Your task to perform on an android device: Open the phone app and click the voicemail tab. Image 0: 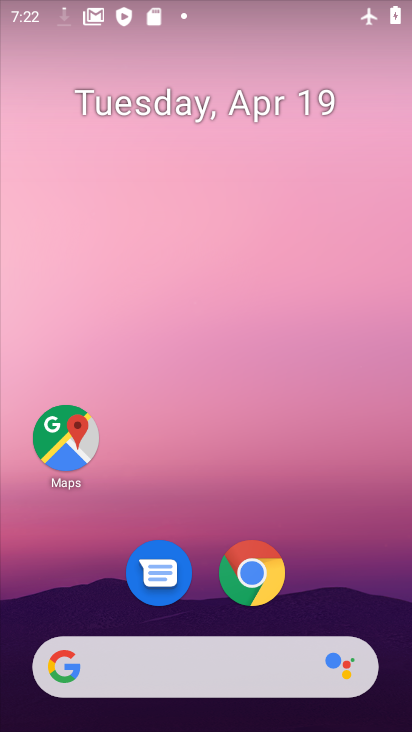
Step 0: drag from (287, 677) to (268, 227)
Your task to perform on an android device: Open the phone app and click the voicemail tab. Image 1: 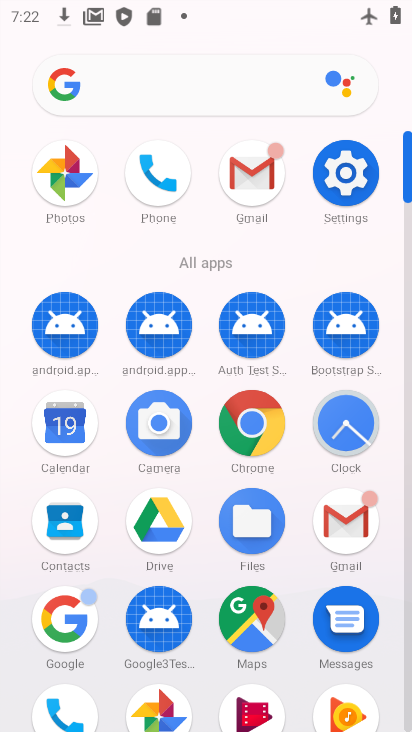
Step 1: click (169, 192)
Your task to perform on an android device: Open the phone app and click the voicemail tab. Image 2: 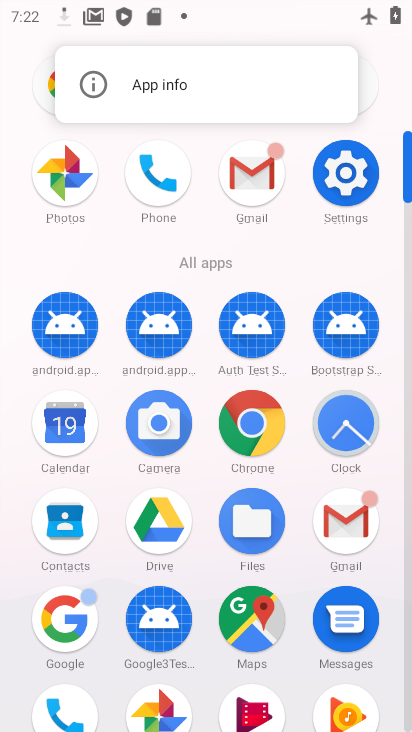
Step 2: click (175, 166)
Your task to perform on an android device: Open the phone app and click the voicemail tab. Image 3: 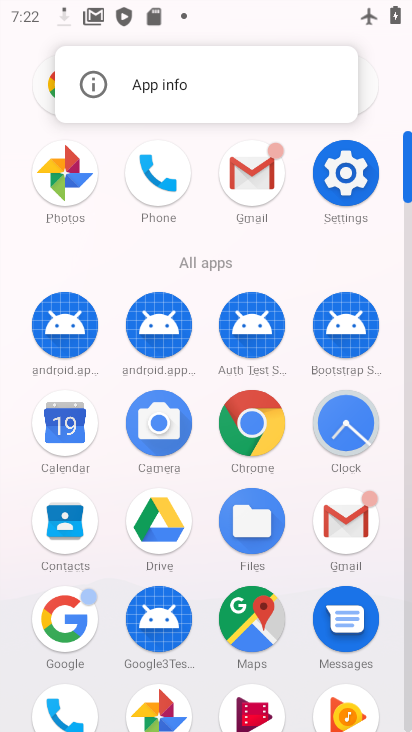
Step 3: click (156, 184)
Your task to perform on an android device: Open the phone app and click the voicemail tab. Image 4: 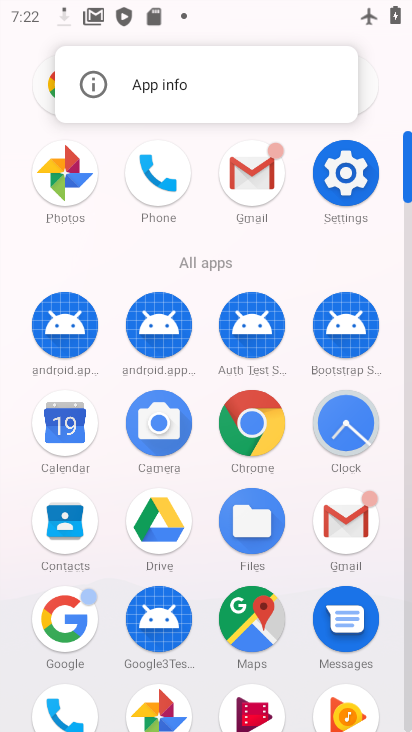
Step 4: click (156, 184)
Your task to perform on an android device: Open the phone app and click the voicemail tab. Image 5: 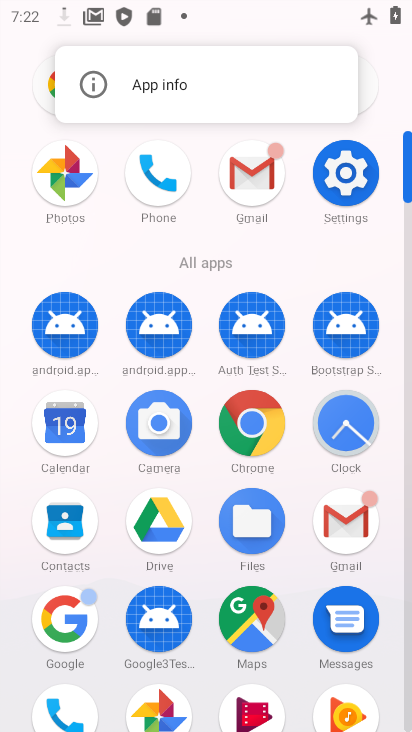
Step 5: click (156, 184)
Your task to perform on an android device: Open the phone app and click the voicemail tab. Image 6: 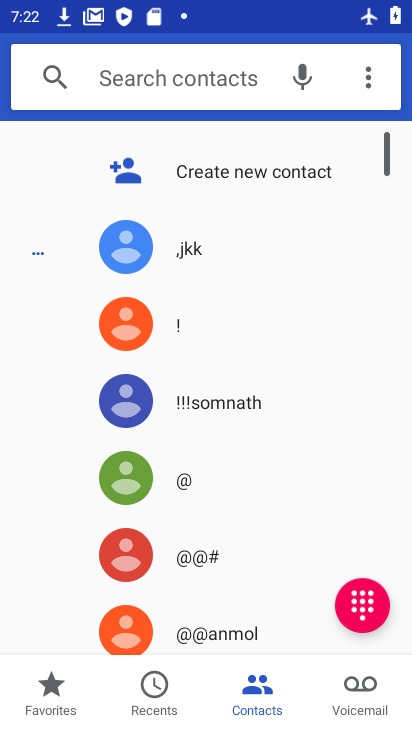
Step 6: click (352, 702)
Your task to perform on an android device: Open the phone app and click the voicemail tab. Image 7: 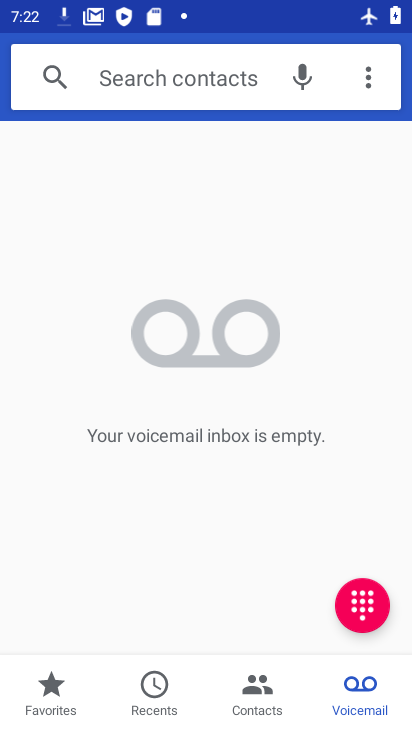
Step 7: task complete